Your task to perform on an android device: turn on notifications settings in the gmail app Image 0: 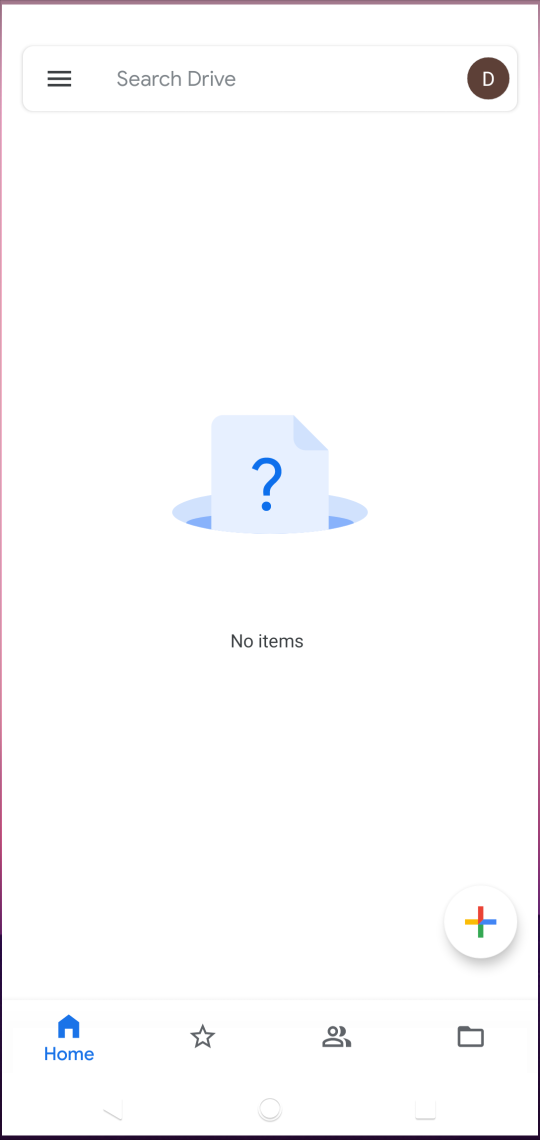
Step 0: press home button
Your task to perform on an android device: turn on notifications settings in the gmail app Image 1: 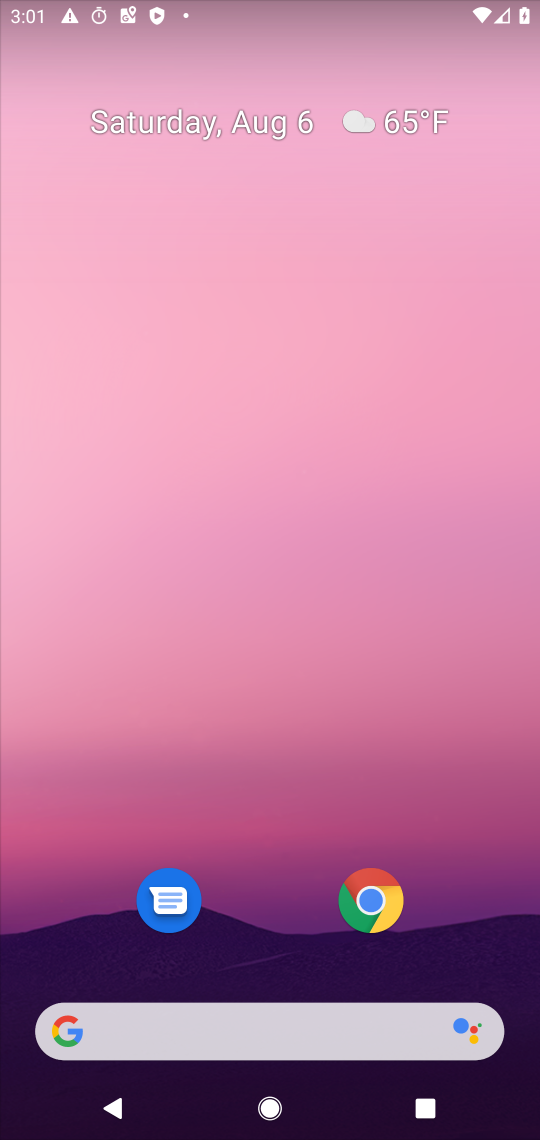
Step 1: drag from (271, 939) to (412, 5)
Your task to perform on an android device: turn on notifications settings in the gmail app Image 2: 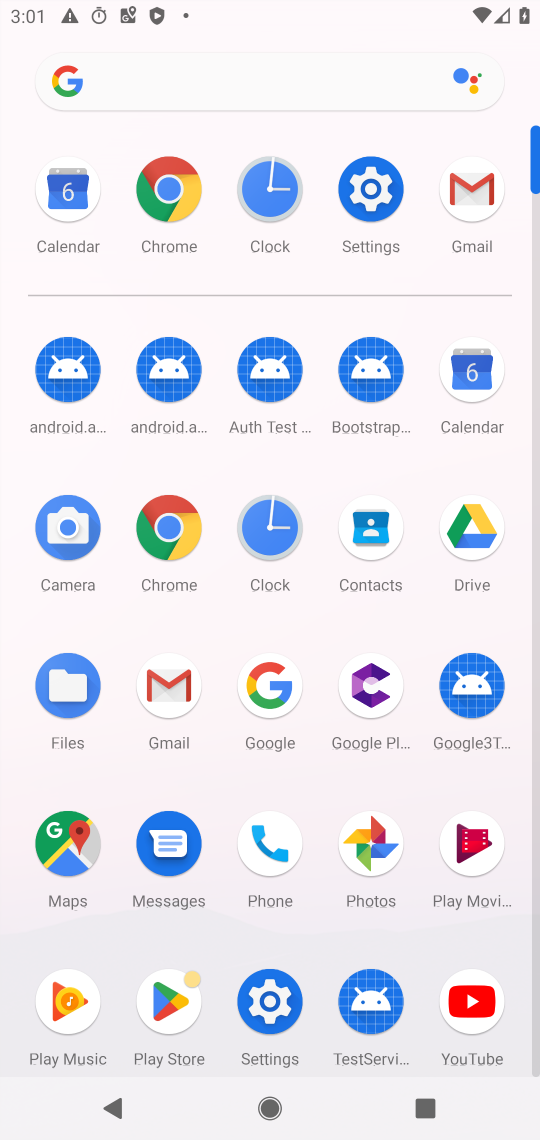
Step 2: click (491, 215)
Your task to perform on an android device: turn on notifications settings in the gmail app Image 3: 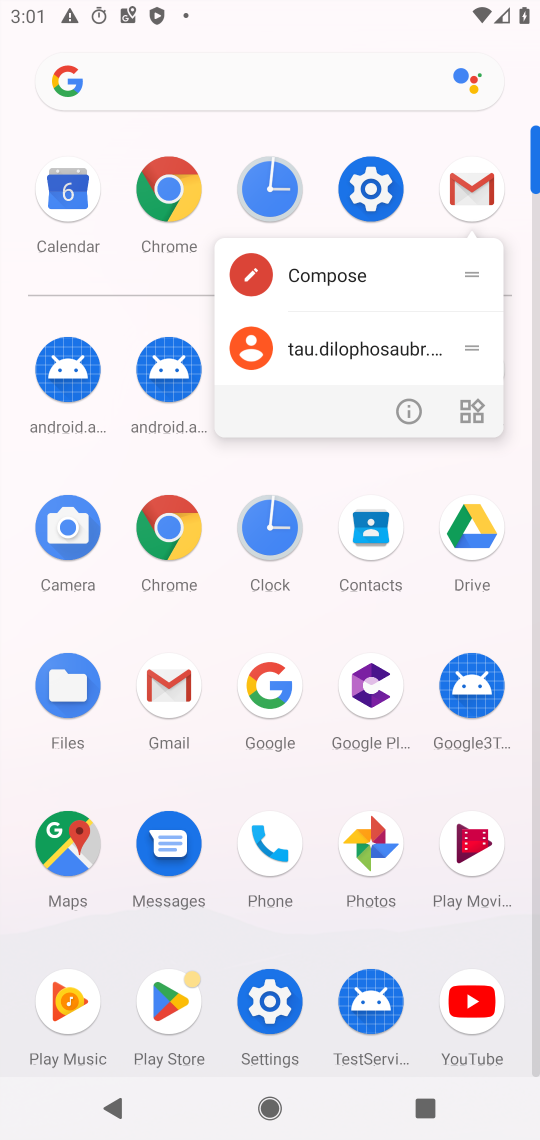
Step 3: click (452, 179)
Your task to perform on an android device: turn on notifications settings in the gmail app Image 4: 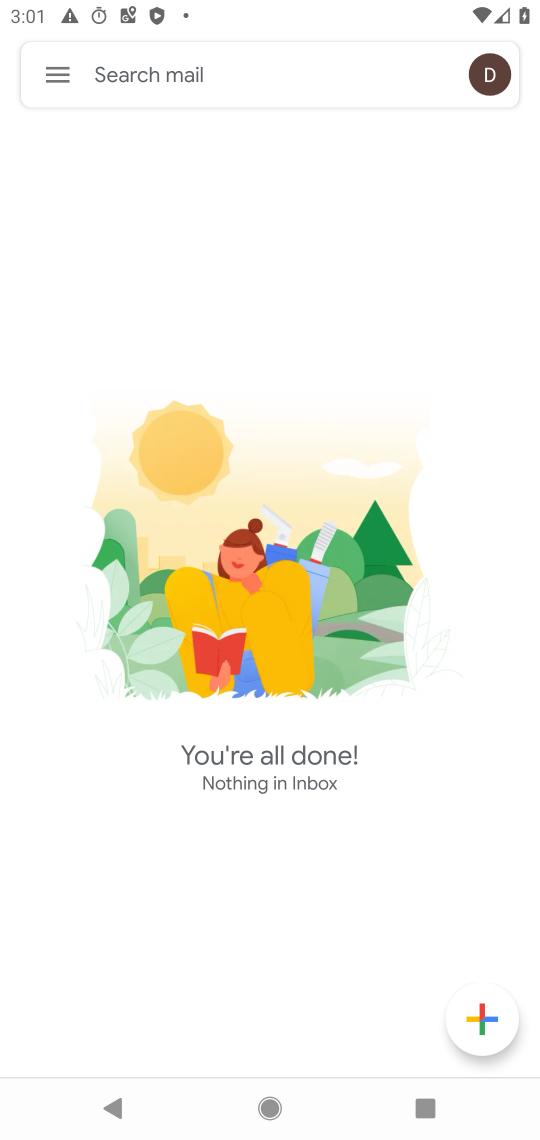
Step 4: click (56, 72)
Your task to perform on an android device: turn on notifications settings in the gmail app Image 5: 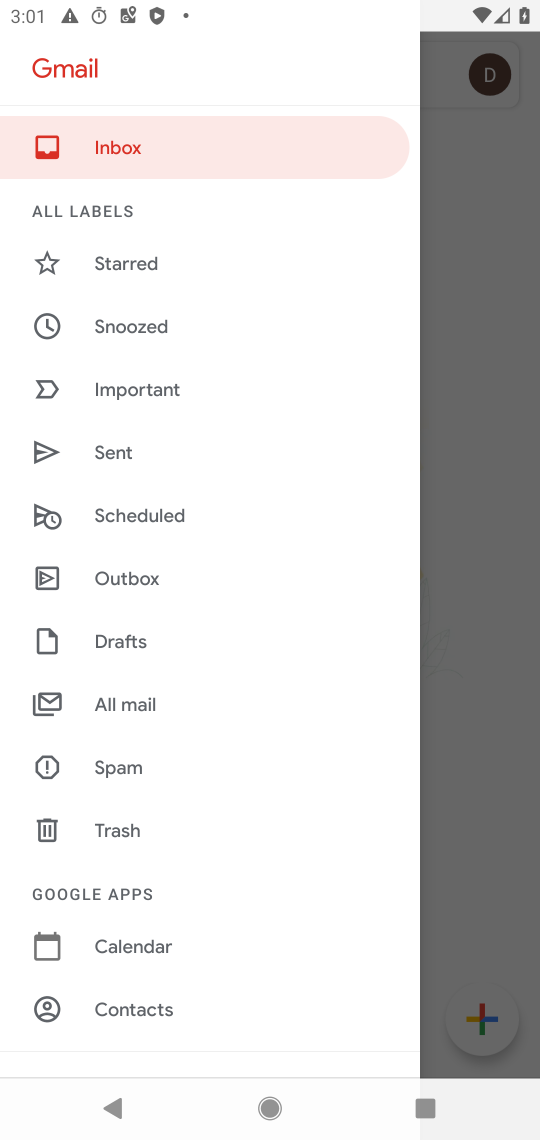
Step 5: drag from (166, 899) to (249, 290)
Your task to perform on an android device: turn on notifications settings in the gmail app Image 6: 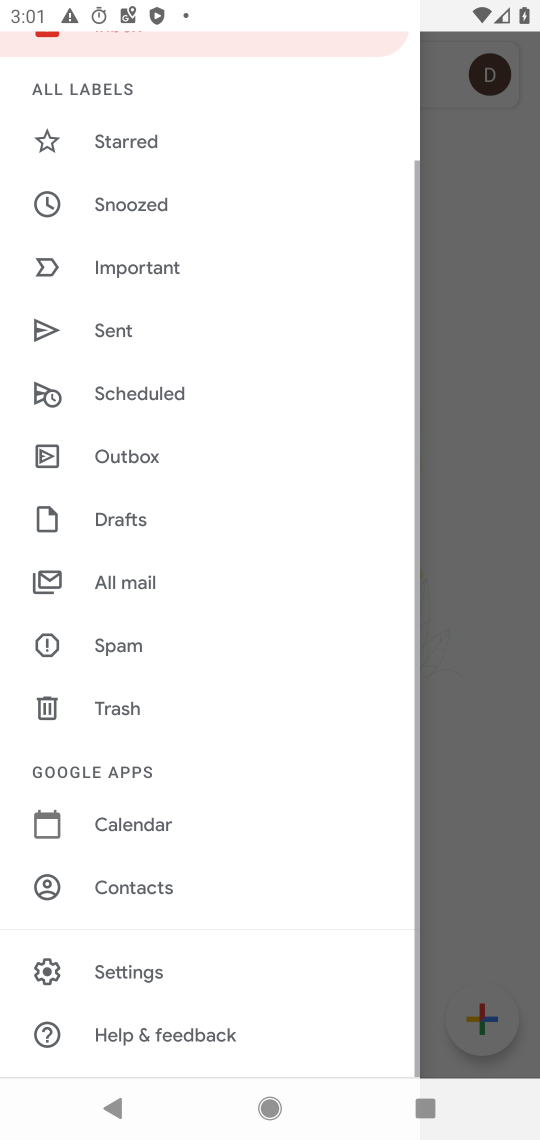
Step 6: click (171, 960)
Your task to perform on an android device: turn on notifications settings in the gmail app Image 7: 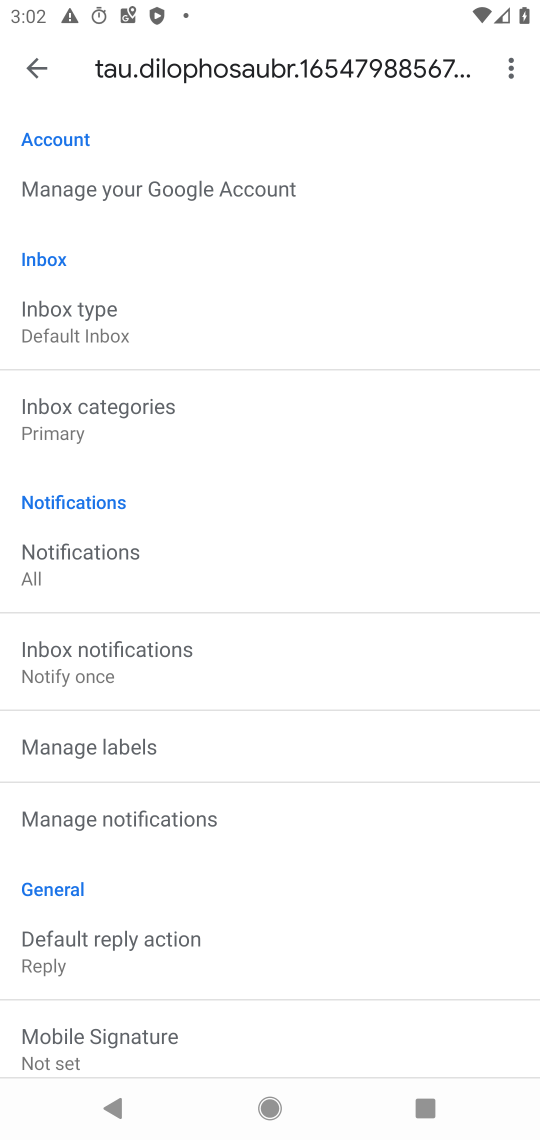
Step 7: drag from (223, 886) to (281, 288)
Your task to perform on an android device: turn on notifications settings in the gmail app Image 8: 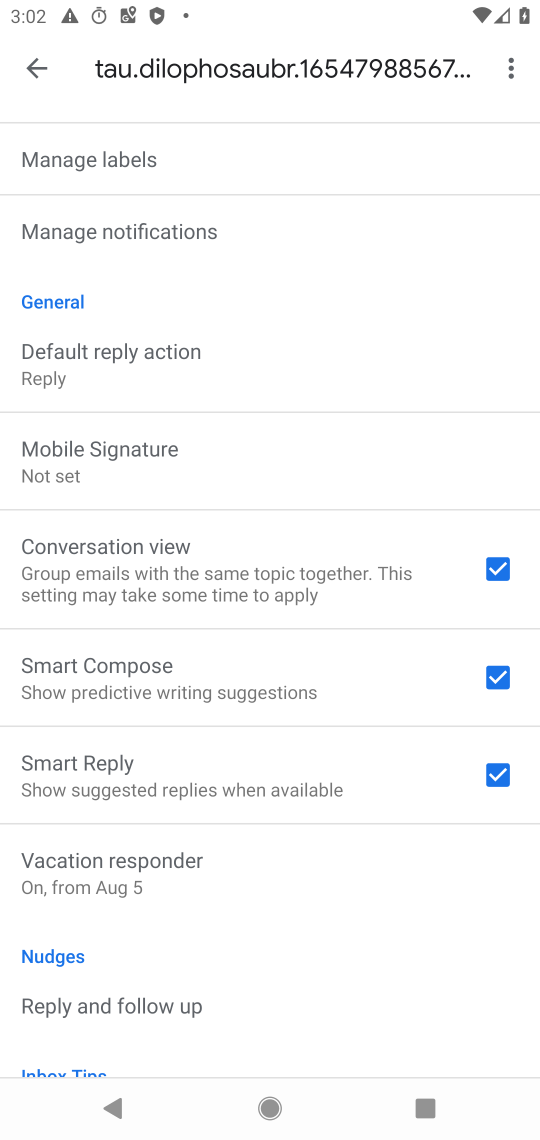
Step 8: click (97, 229)
Your task to perform on an android device: turn on notifications settings in the gmail app Image 9: 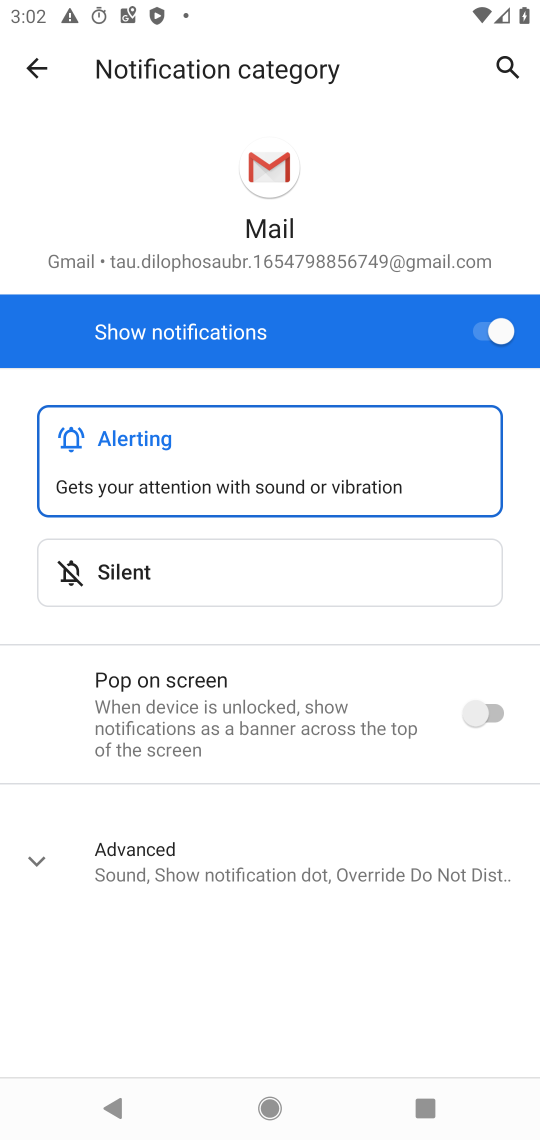
Step 9: task complete